Your task to perform on an android device: Check the news Image 0: 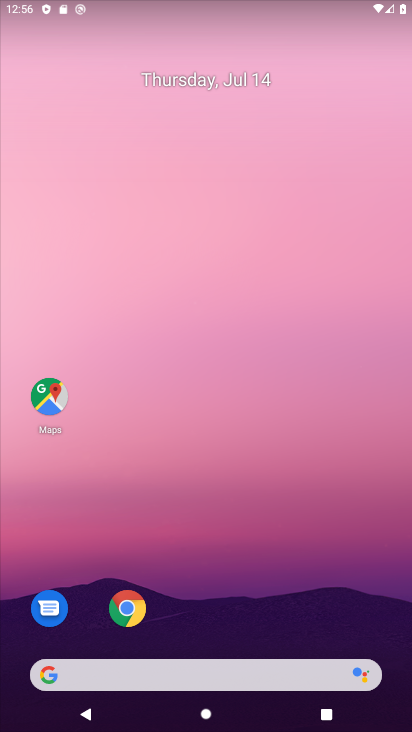
Step 0: drag from (236, 634) to (246, 138)
Your task to perform on an android device: Check the news Image 1: 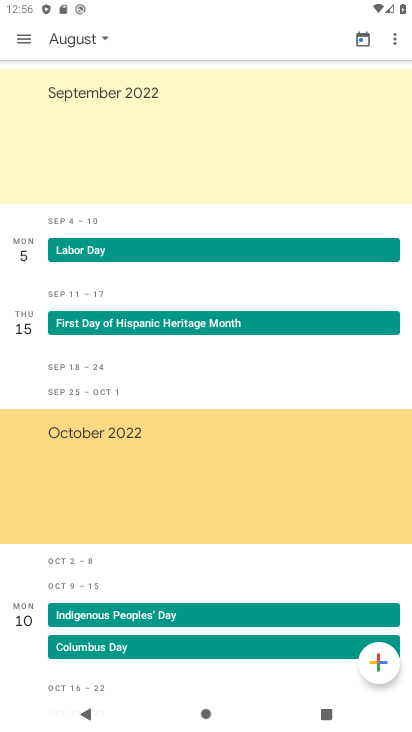
Step 1: press home button
Your task to perform on an android device: Check the news Image 2: 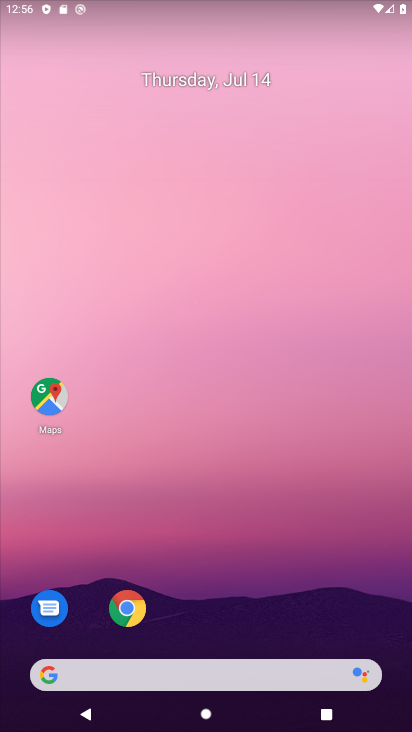
Step 2: click (123, 619)
Your task to perform on an android device: Check the news Image 3: 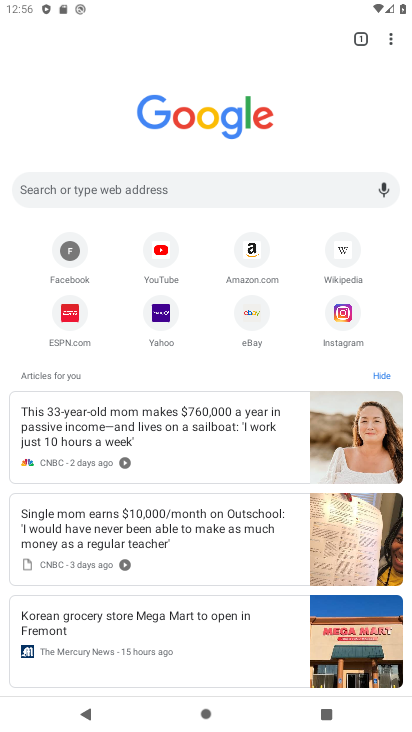
Step 3: click (233, 183)
Your task to perform on an android device: Check the news Image 4: 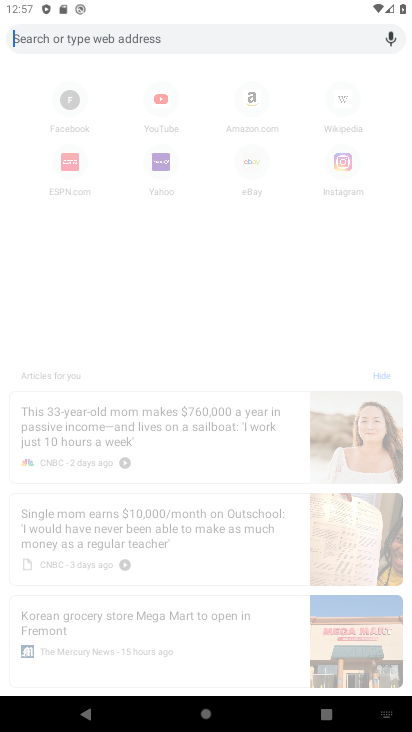
Step 4: type " news"
Your task to perform on an android device: Check the news Image 5: 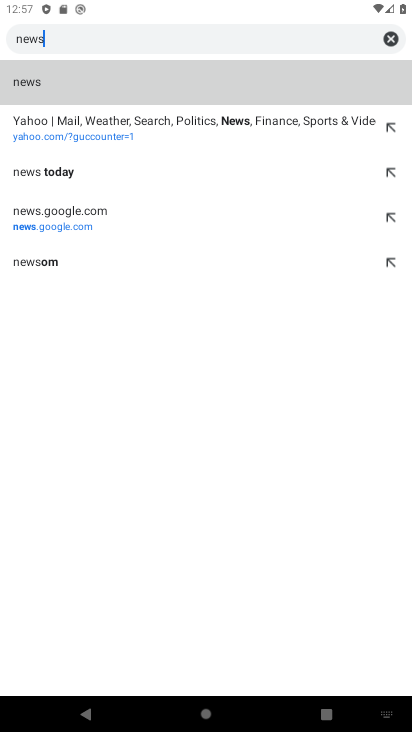
Step 5: click (145, 84)
Your task to perform on an android device: Check the news Image 6: 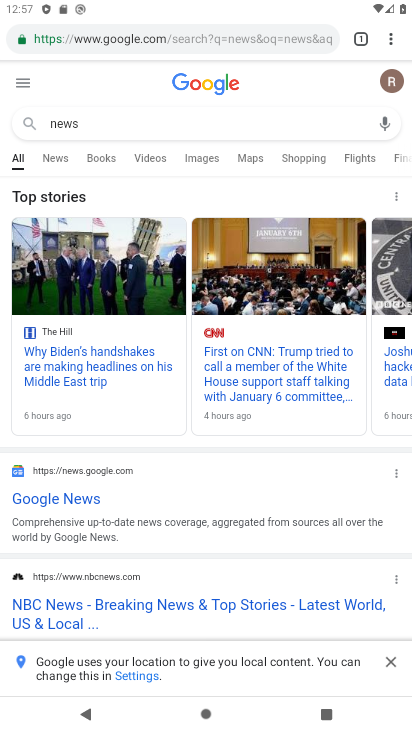
Step 6: click (54, 154)
Your task to perform on an android device: Check the news Image 7: 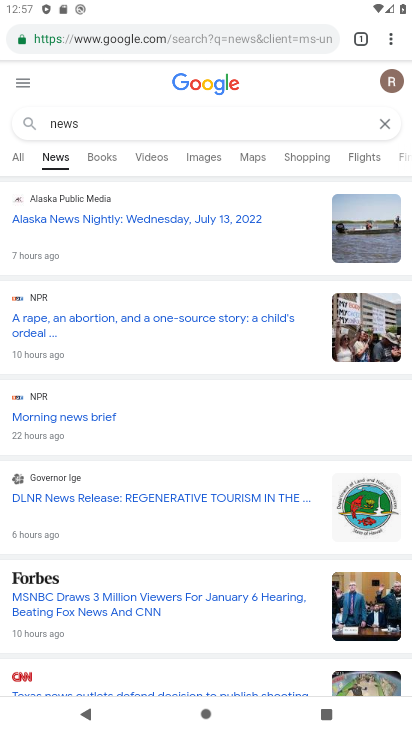
Step 7: task complete